Your task to perform on an android device: turn on data saver in the chrome app Image 0: 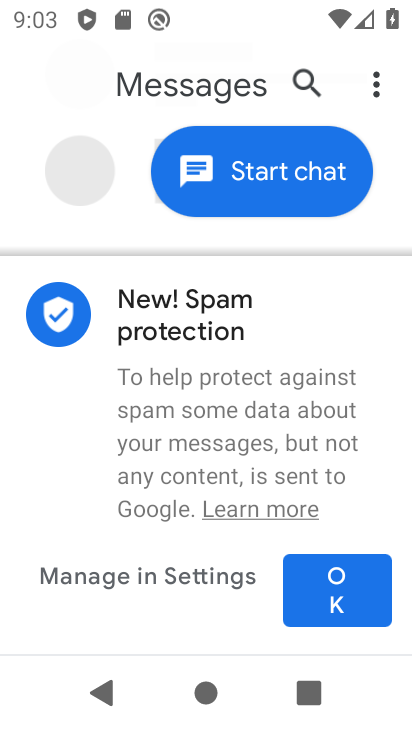
Step 0: drag from (383, 636) to (136, 18)
Your task to perform on an android device: turn on data saver in the chrome app Image 1: 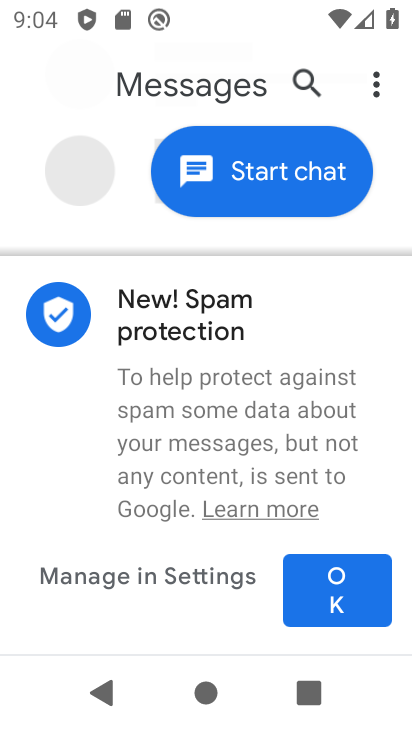
Step 1: click (332, 591)
Your task to perform on an android device: turn on data saver in the chrome app Image 2: 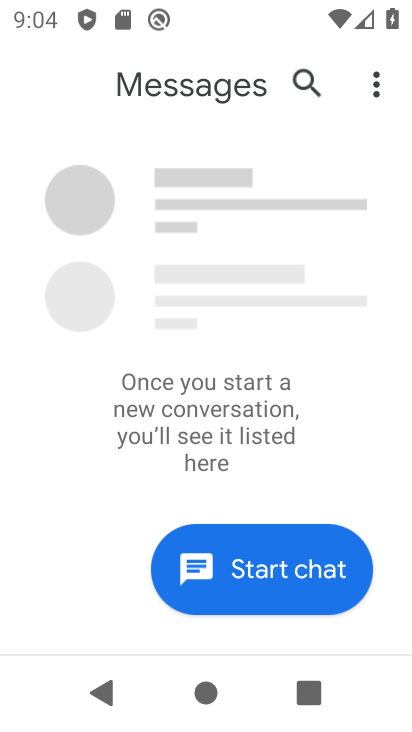
Step 2: press home button
Your task to perform on an android device: turn on data saver in the chrome app Image 3: 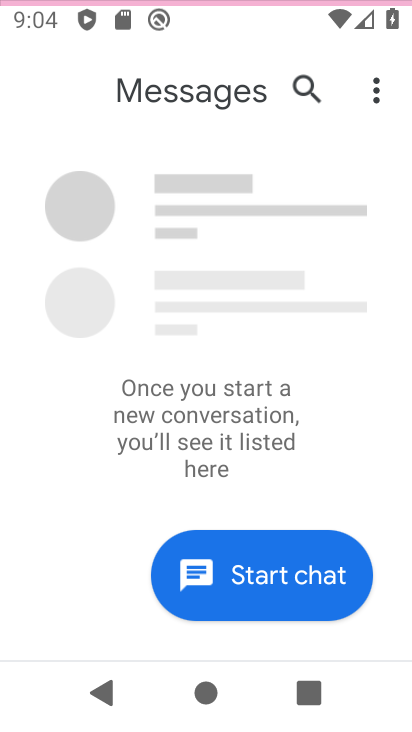
Step 3: press home button
Your task to perform on an android device: turn on data saver in the chrome app Image 4: 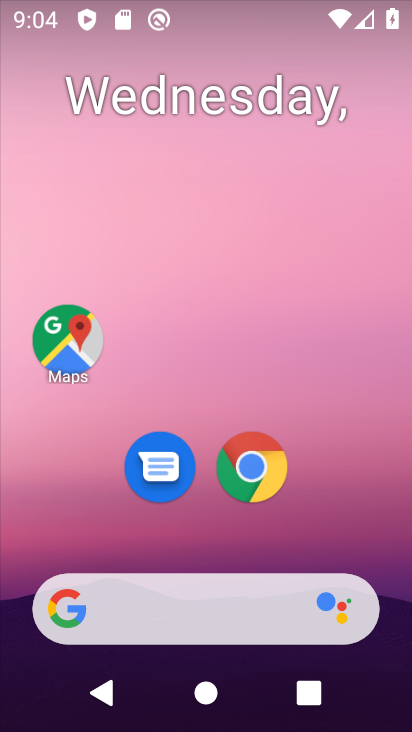
Step 4: drag from (263, 413) to (95, 24)
Your task to perform on an android device: turn on data saver in the chrome app Image 5: 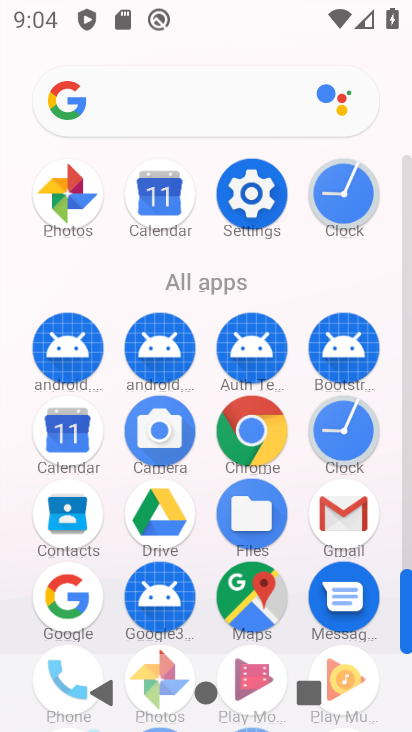
Step 5: drag from (302, 468) to (117, 34)
Your task to perform on an android device: turn on data saver in the chrome app Image 6: 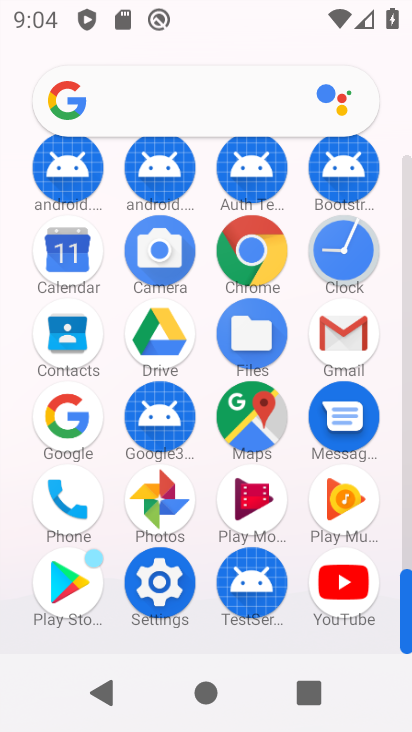
Step 6: drag from (345, 500) to (233, 263)
Your task to perform on an android device: turn on data saver in the chrome app Image 7: 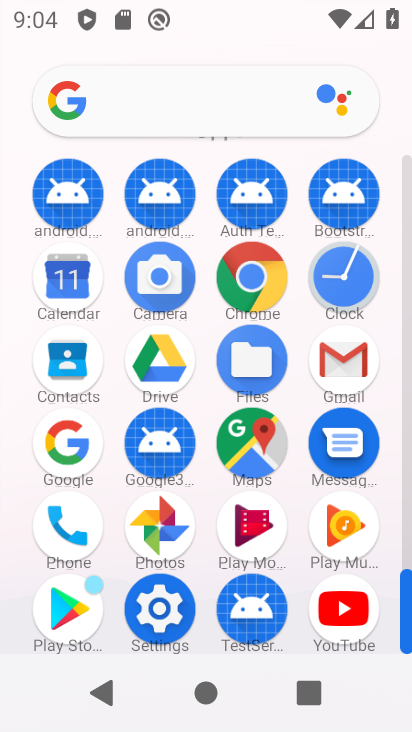
Step 7: click (266, 269)
Your task to perform on an android device: turn on data saver in the chrome app Image 8: 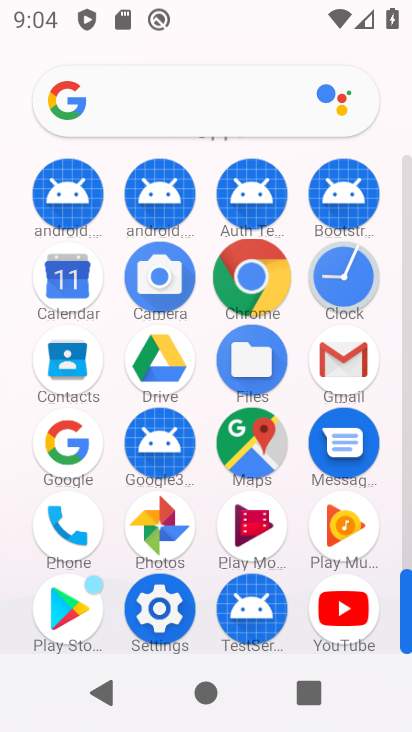
Step 8: click (266, 269)
Your task to perform on an android device: turn on data saver in the chrome app Image 9: 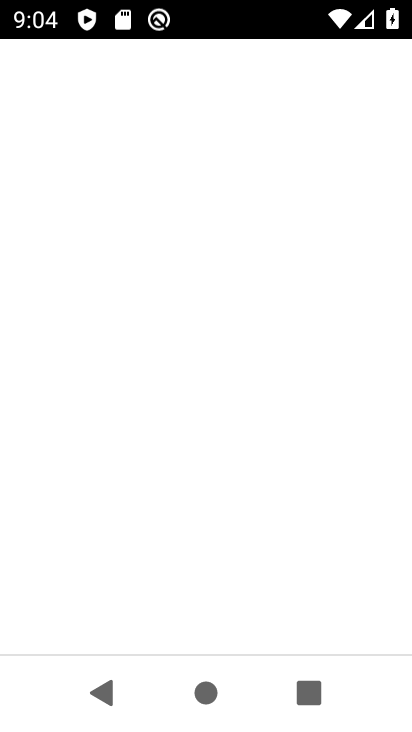
Step 9: click (262, 269)
Your task to perform on an android device: turn on data saver in the chrome app Image 10: 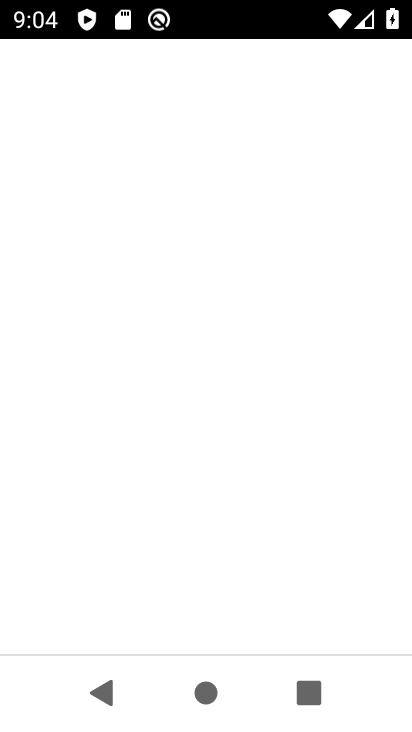
Step 10: click (257, 272)
Your task to perform on an android device: turn on data saver in the chrome app Image 11: 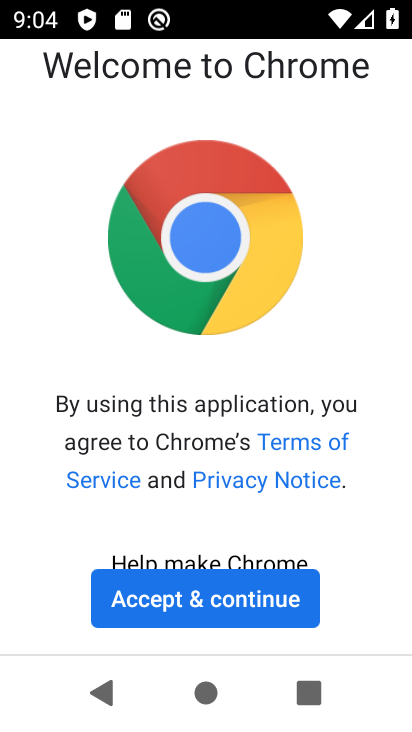
Step 11: click (241, 585)
Your task to perform on an android device: turn on data saver in the chrome app Image 12: 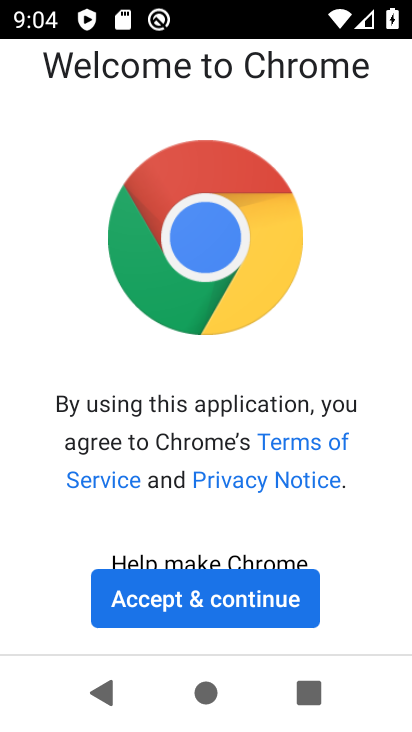
Step 12: click (235, 588)
Your task to perform on an android device: turn on data saver in the chrome app Image 13: 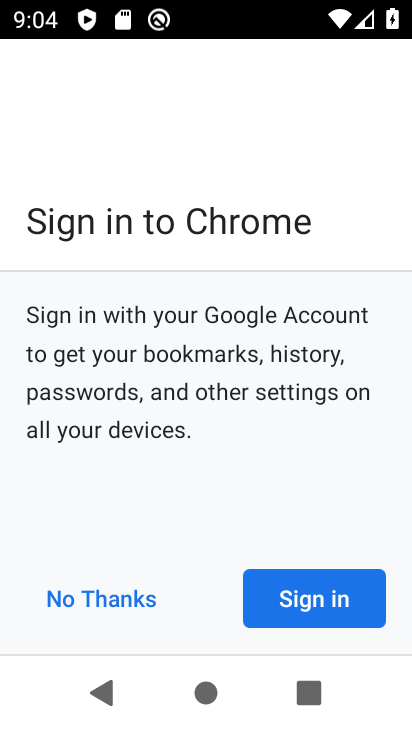
Step 13: click (234, 596)
Your task to perform on an android device: turn on data saver in the chrome app Image 14: 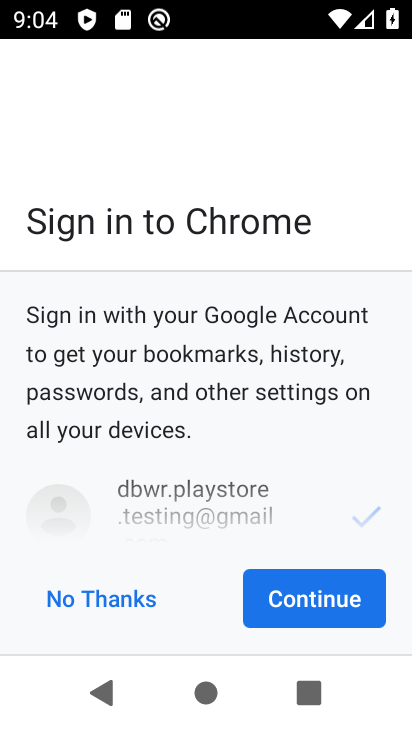
Step 14: click (305, 601)
Your task to perform on an android device: turn on data saver in the chrome app Image 15: 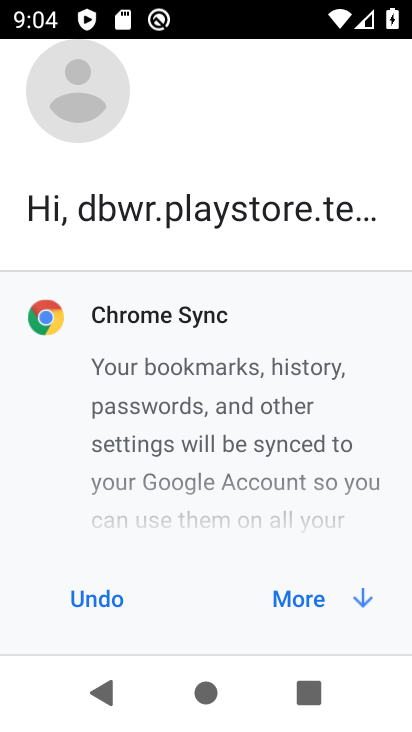
Step 15: click (319, 594)
Your task to perform on an android device: turn on data saver in the chrome app Image 16: 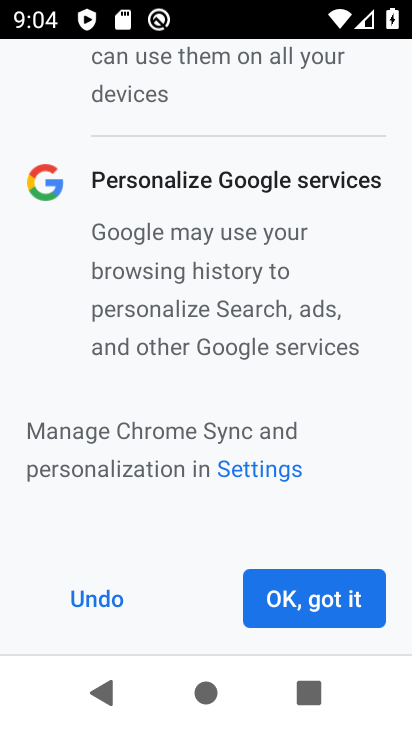
Step 16: click (317, 592)
Your task to perform on an android device: turn on data saver in the chrome app Image 17: 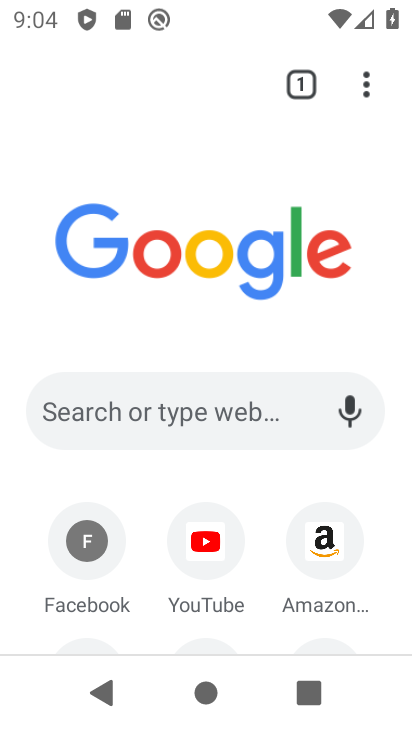
Step 17: click (354, 596)
Your task to perform on an android device: turn on data saver in the chrome app Image 18: 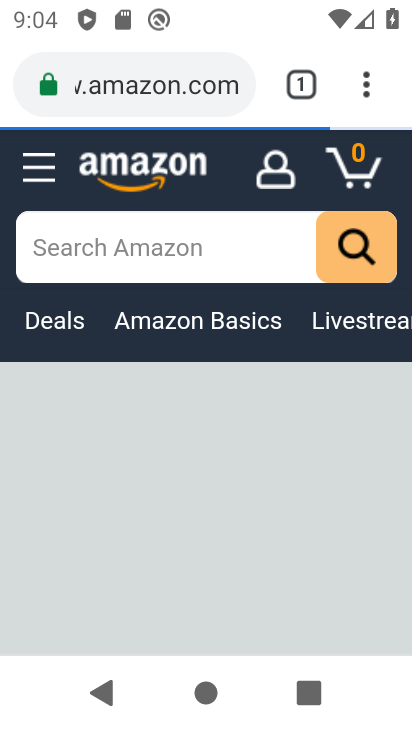
Step 18: drag from (367, 89) to (83, 508)
Your task to perform on an android device: turn on data saver in the chrome app Image 19: 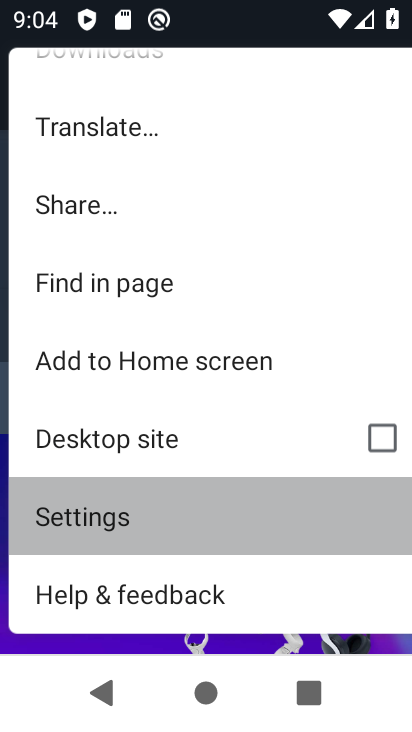
Step 19: click (84, 510)
Your task to perform on an android device: turn on data saver in the chrome app Image 20: 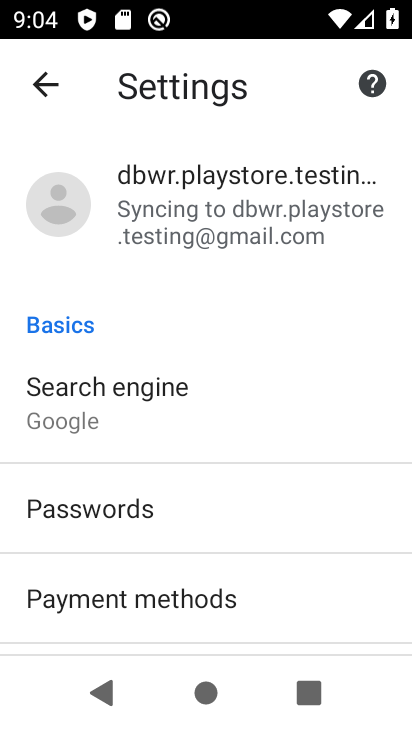
Step 20: drag from (177, 438) to (188, 48)
Your task to perform on an android device: turn on data saver in the chrome app Image 21: 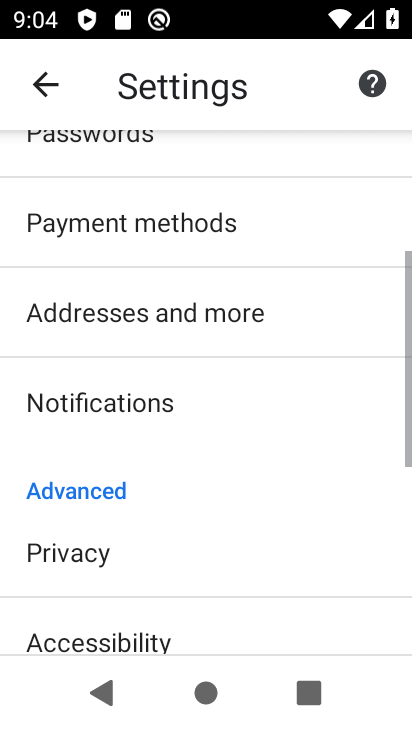
Step 21: drag from (227, 409) to (111, 0)
Your task to perform on an android device: turn on data saver in the chrome app Image 22: 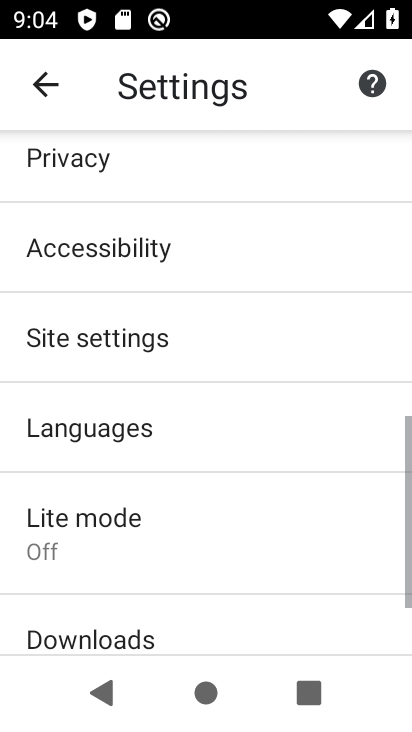
Step 22: drag from (140, 561) to (135, 71)
Your task to perform on an android device: turn on data saver in the chrome app Image 23: 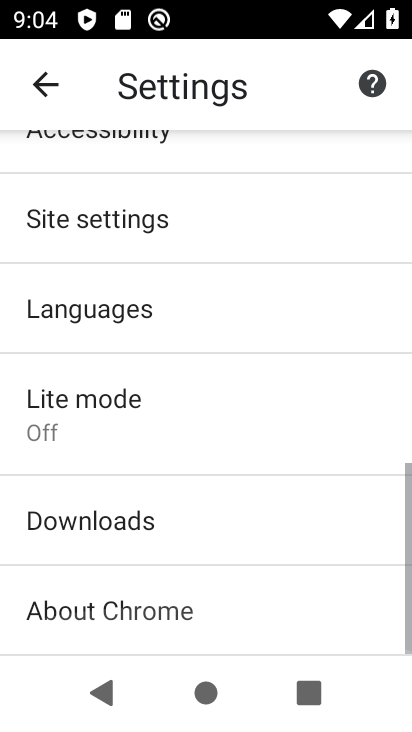
Step 23: drag from (205, 494) to (142, 69)
Your task to perform on an android device: turn on data saver in the chrome app Image 24: 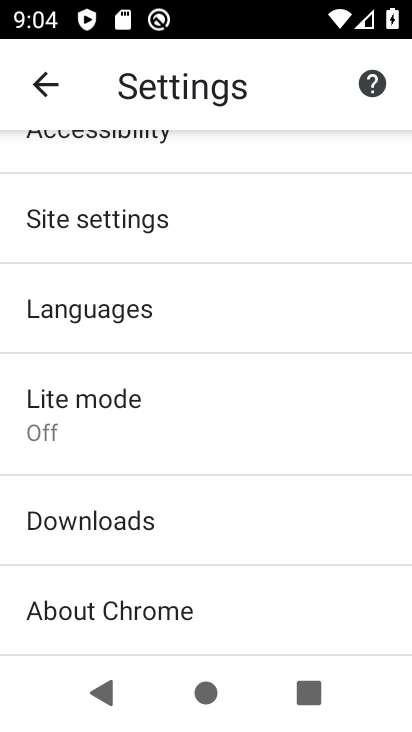
Step 24: click (93, 404)
Your task to perform on an android device: turn on data saver in the chrome app Image 25: 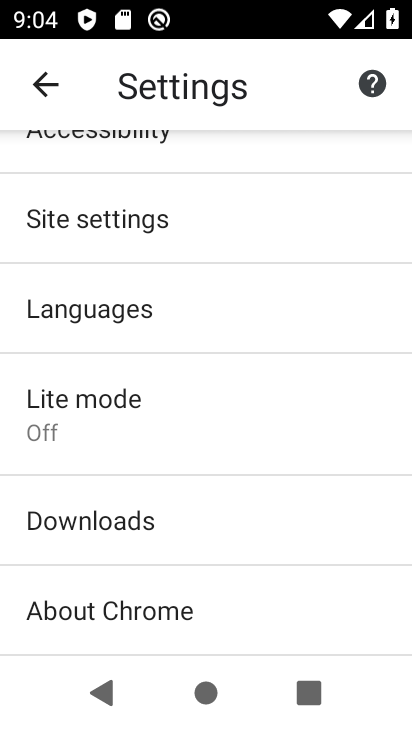
Step 25: click (90, 403)
Your task to perform on an android device: turn on data saver in the chrome app Image 26: 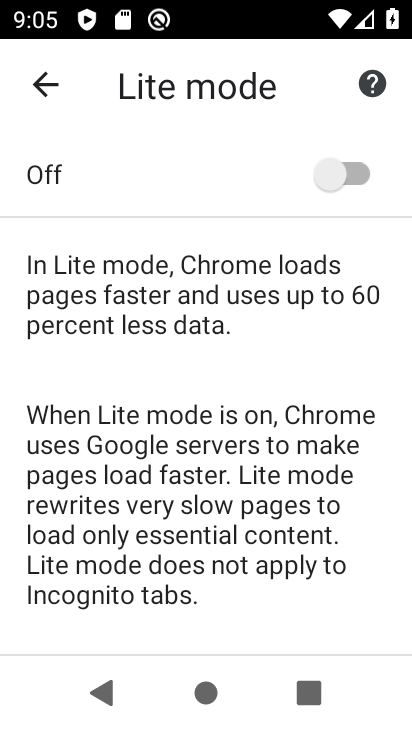
Step 26: click (343, 172)
Your task to perform on an android device: turn on data saver in the chrome app Image 27: 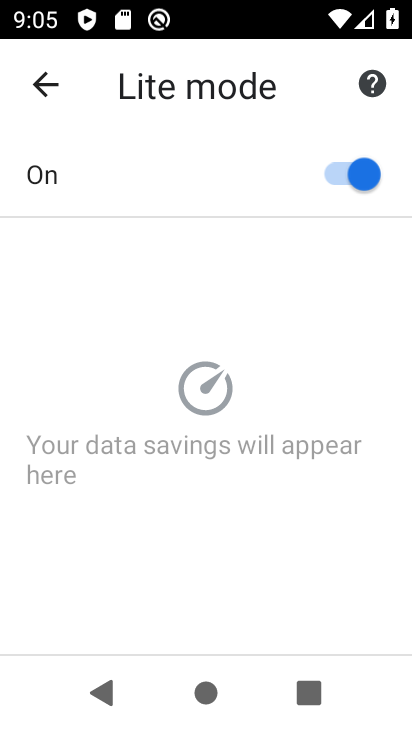
Step 27: task complete